Your task to perform on an android device: toggle sleep mode Image 0: 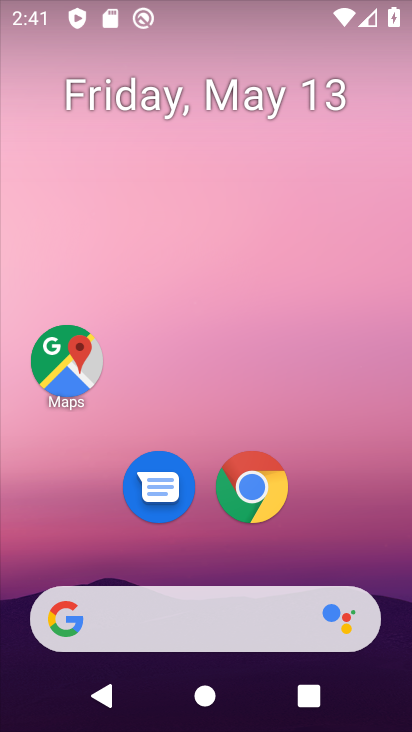
Step 0: drag from (364, 503) to (311, 76)
Your task to perform on an android device: toggle sleep mode Image 1: 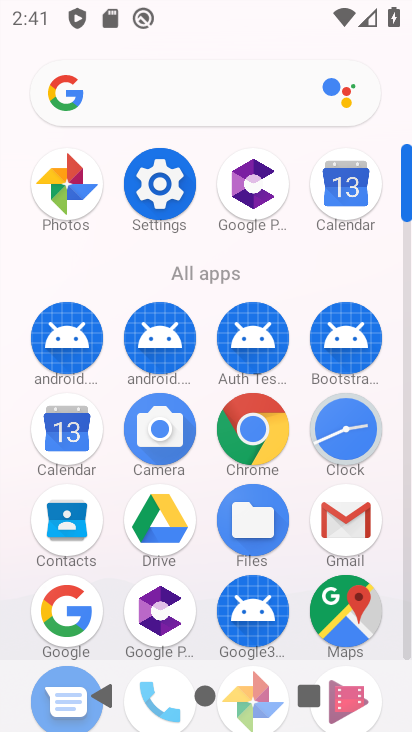
Step 1: click (181, 187)
Your task to perform on an android device: toggle sleep mode Image 2: 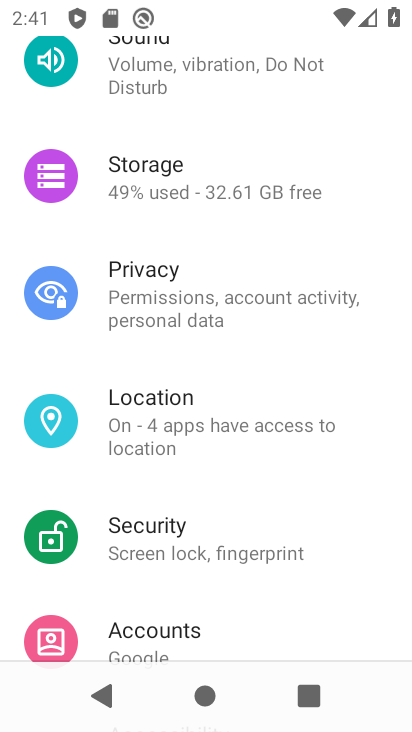
Step 2: drag from (205, 168) to (229, 549)
Your task to perform on an android device: toggle sleep mode Image 3: 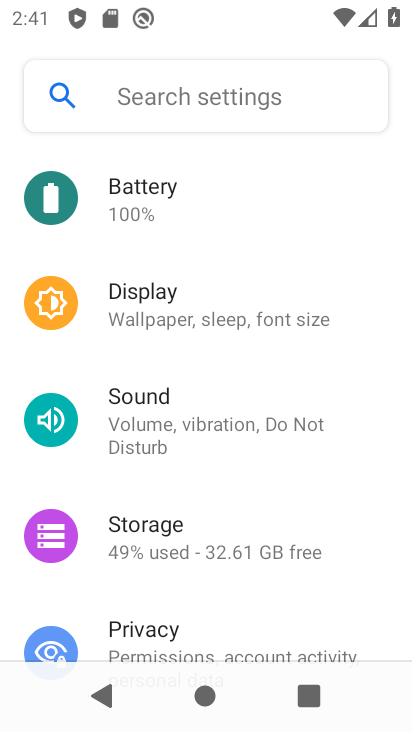
Step 3: click (175, 303)
Your task to perform on an android device: toggle sleep mode Image 4: 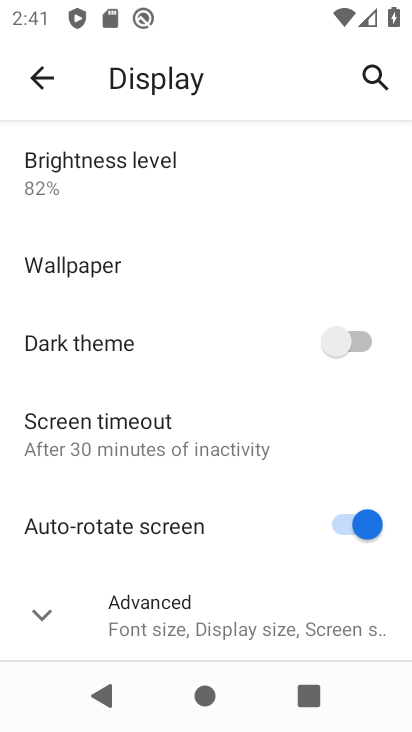
Step 4: click (92, 439)
Your task to perform on an android device: toggle sleep mode Image 5: 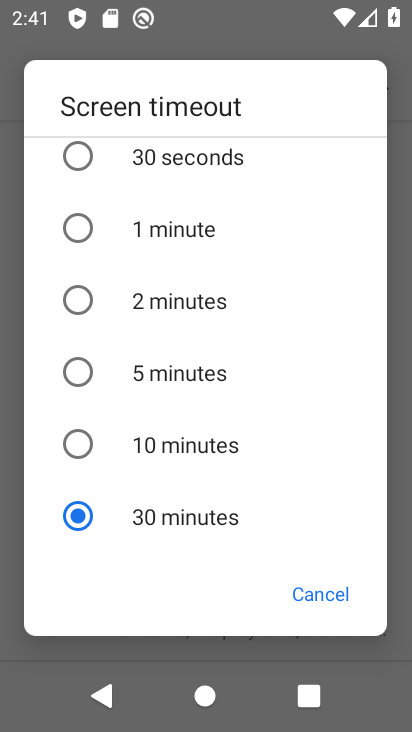
Step 5: click (140, 323)
Your task to perform on an android device: toggle sleep mode Image 6: 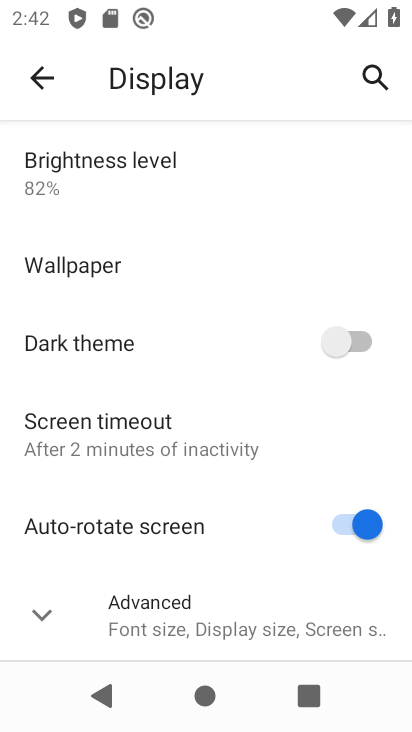
Step 6: task complete